Your task to perform on an android device: Turn off the flashlight Image 0: 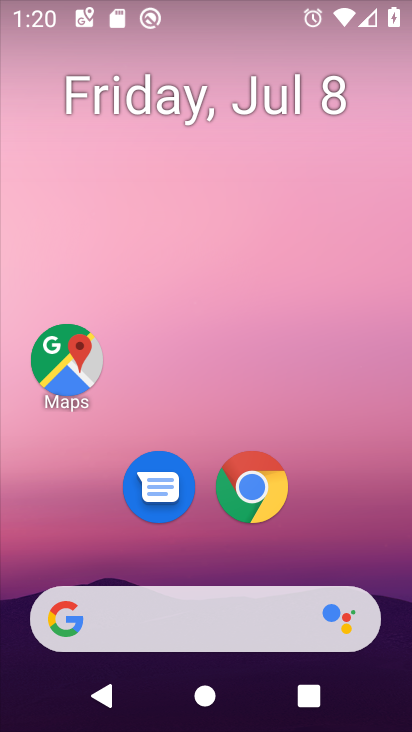
Step 0: drag from (241, 5) to (249, 380)
Your task to perform on an android device: Turn off the flashlight Image 1: 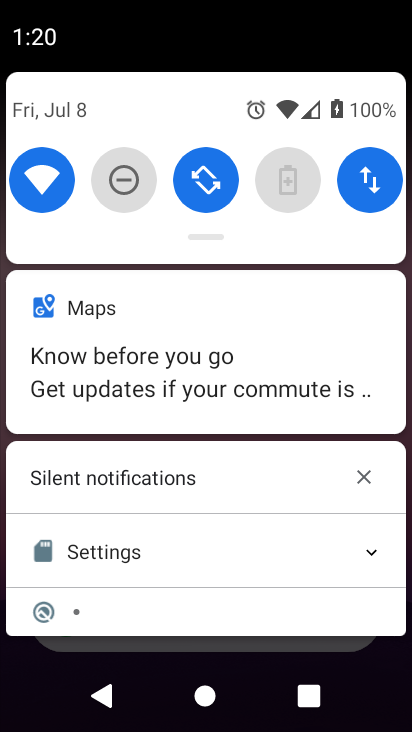
Step 1: drag from (159, 124) to (159, 376)
Your task to perform on an android device: Turn off the flashlight Image 2: 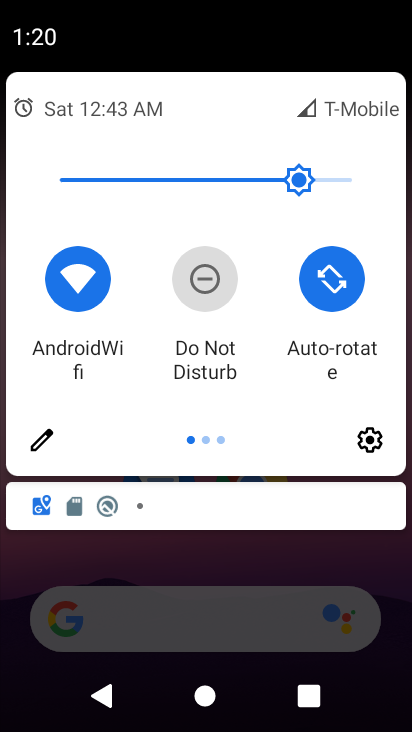
Step 2: click (49, 436)
Your task to perform on an android device: Turn off the flashlight Image 3: 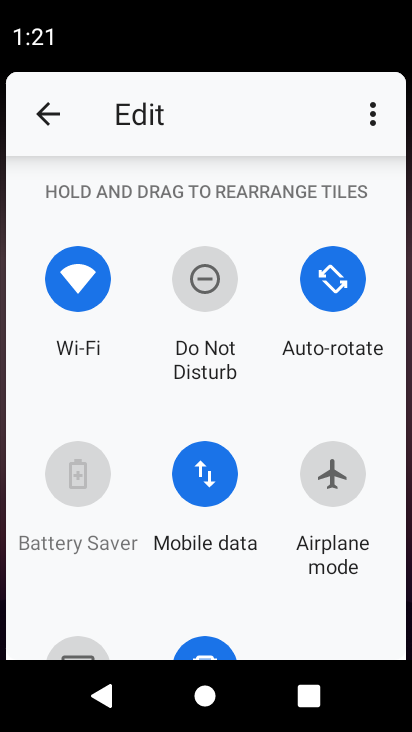
Step 3: task complete